Your task to perform on an android device: Open settings Image 0: 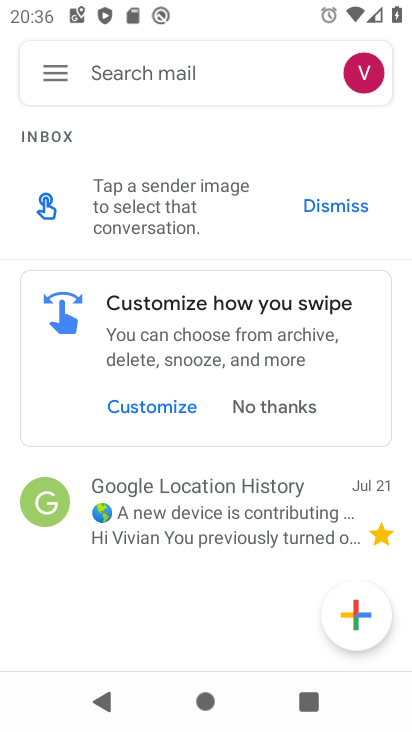
Step 0: press home button
Your task to perform on an android device: Open settings Image 1: 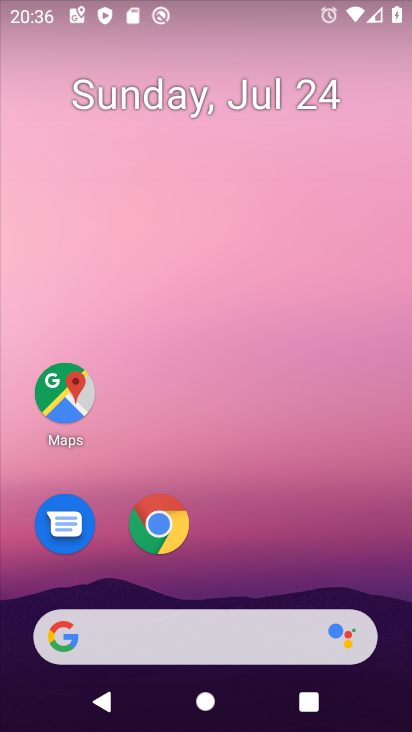
Step 1: drag from (245, 567) to (275, 1)
Your task to perform on an android device: Open settings Image 2: 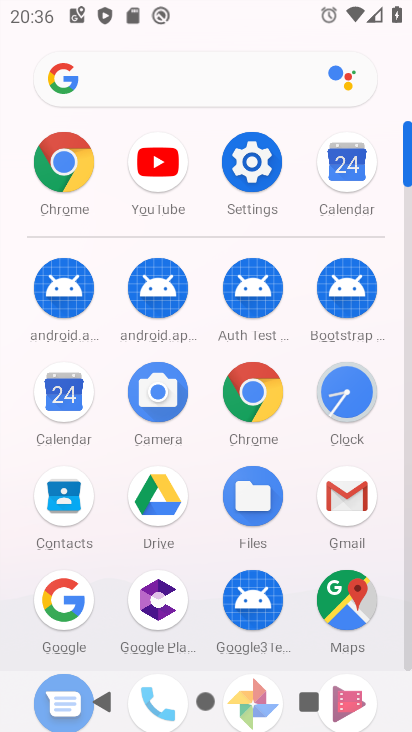
Step 2: click (257, 160)
Your task to perform on an android device: Open settings Image 3: 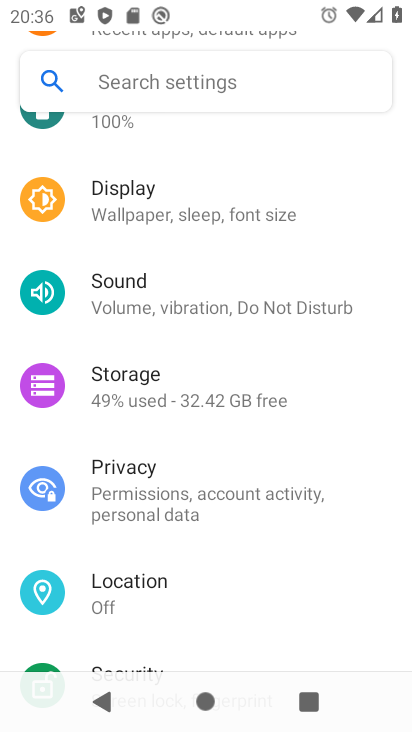
Step 3: task complete